Your task to perform on an android device: Check the settings for the Google Play Music app Image 0: 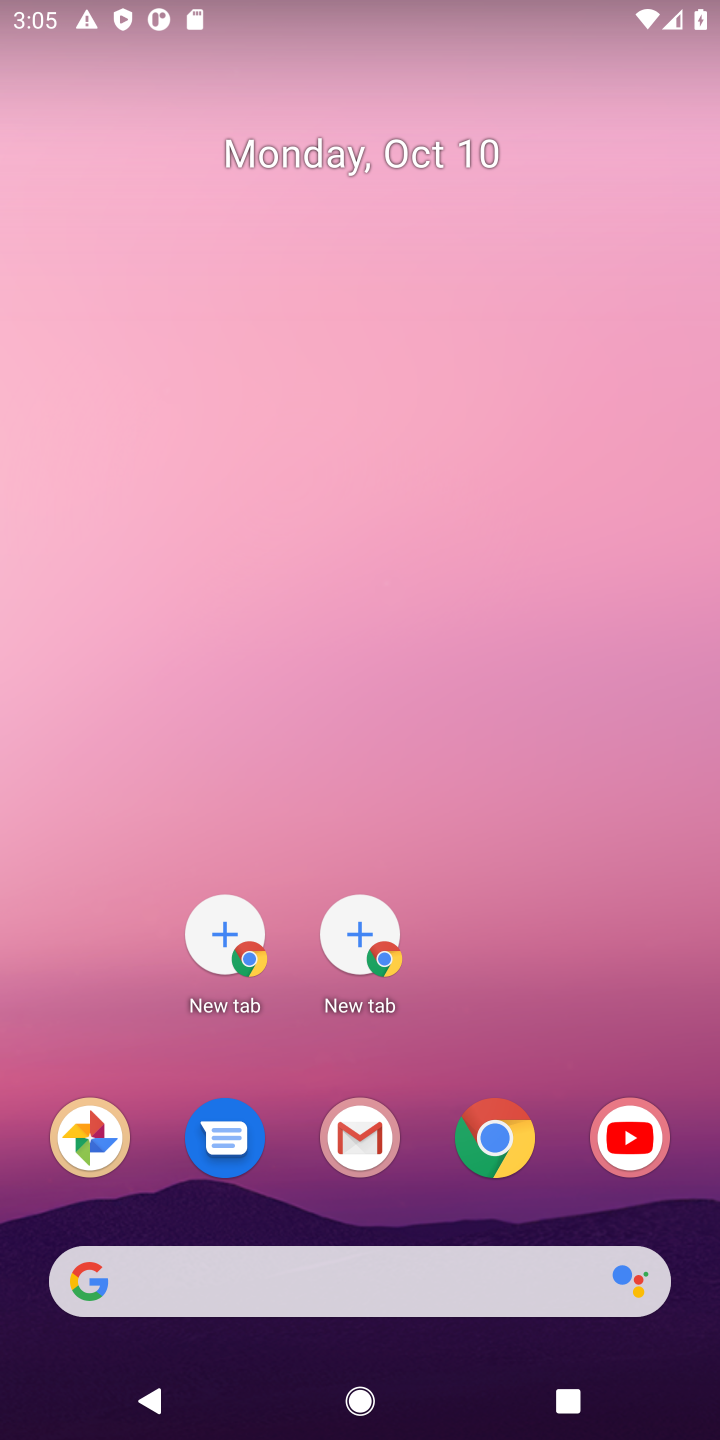
Step 0: click (506, 1151)
Your task to perform on an android device: Check the settings for the Google Play Music app Image 1: 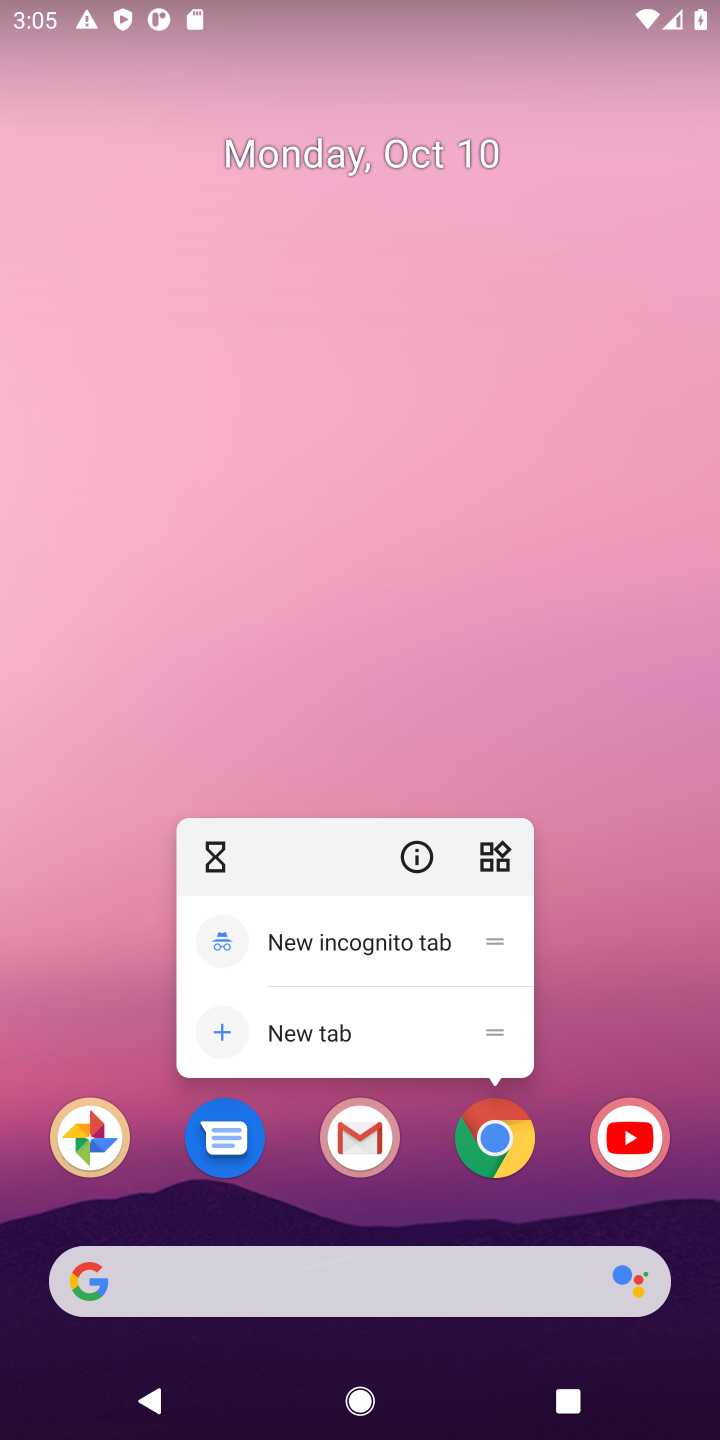
Step 1: drag from (329, 1365) to (310, 474)
Your task to perform on an android device: Check the settings for the Google Play Music app Image 2: 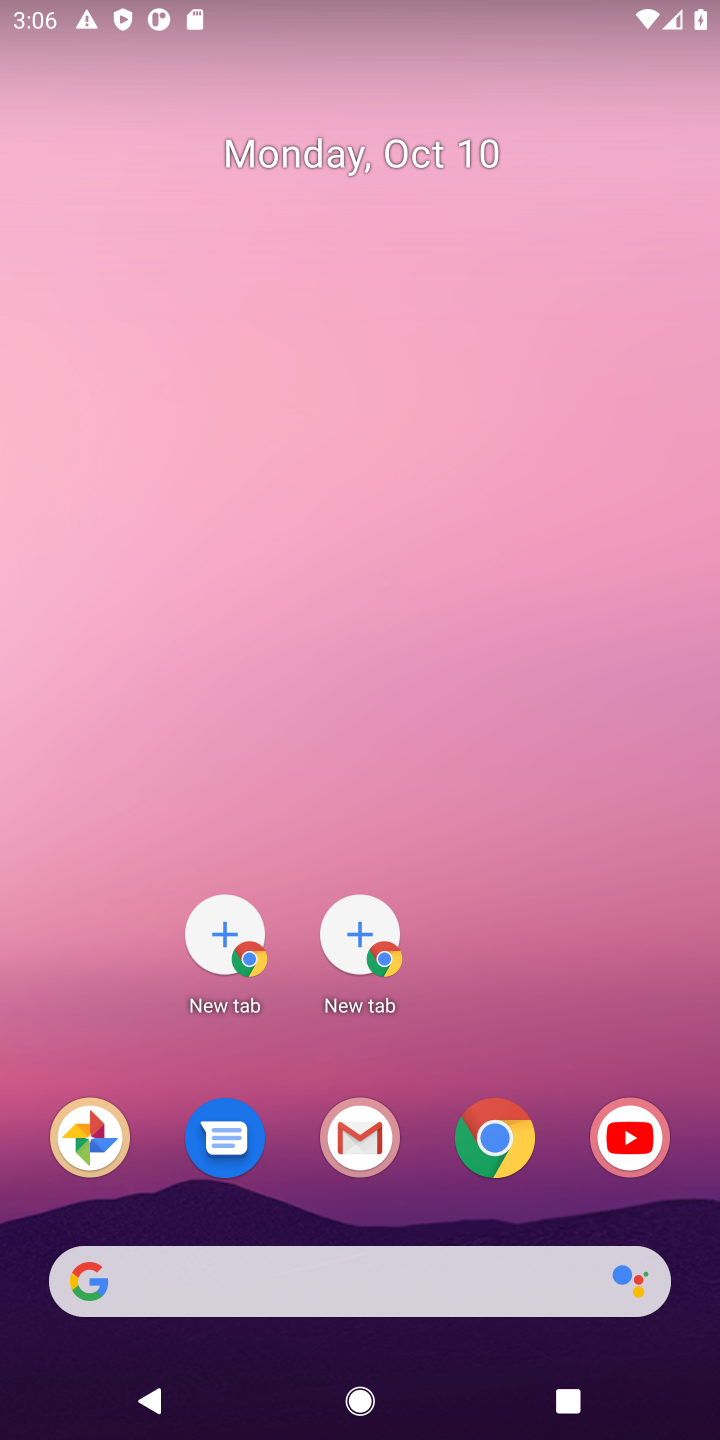
Step 2: drag from (515, 1432) to (490, 532)
Your task to perform on an android device: Check the settings for the Google Play Music app Image 3: 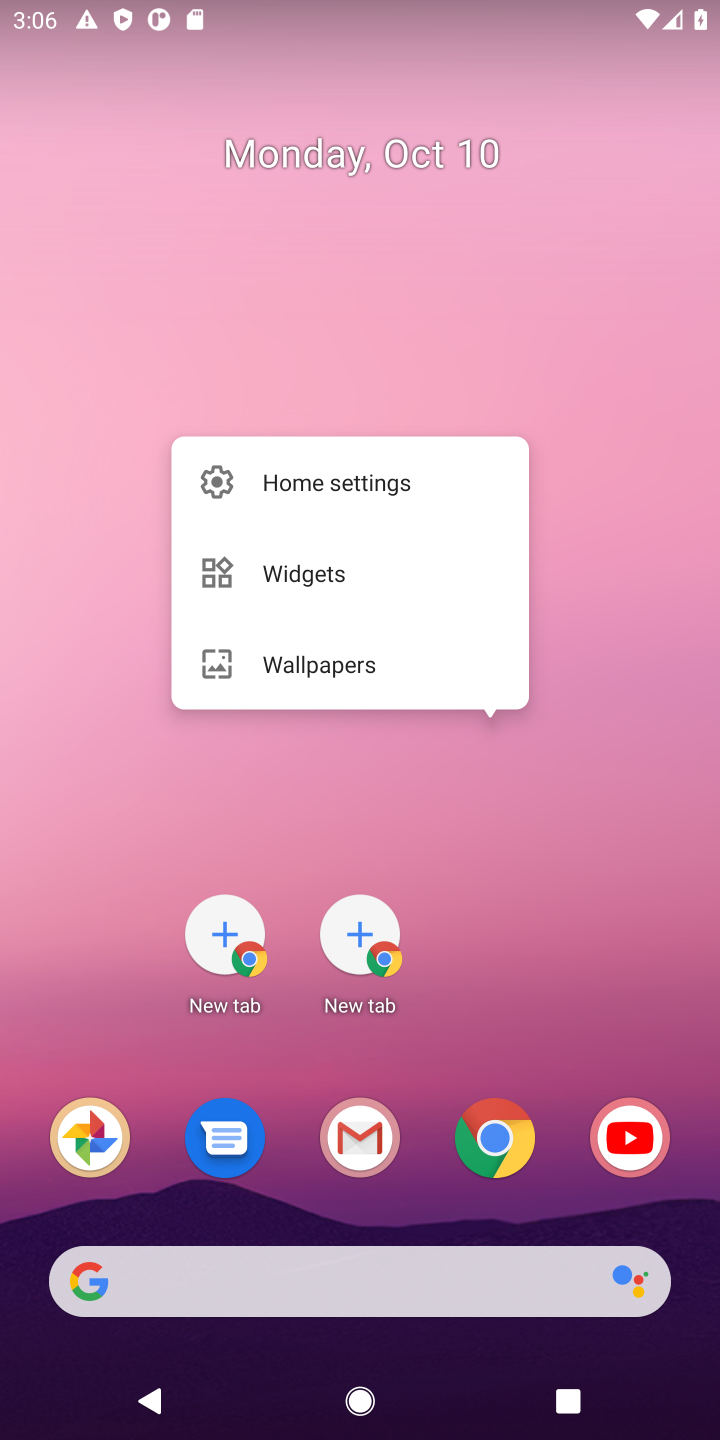
Step 3: drag from (608, 1009) to (491, 30)
Your task to perform on an android device: Check the settings for the Google Play Music app Image 4: 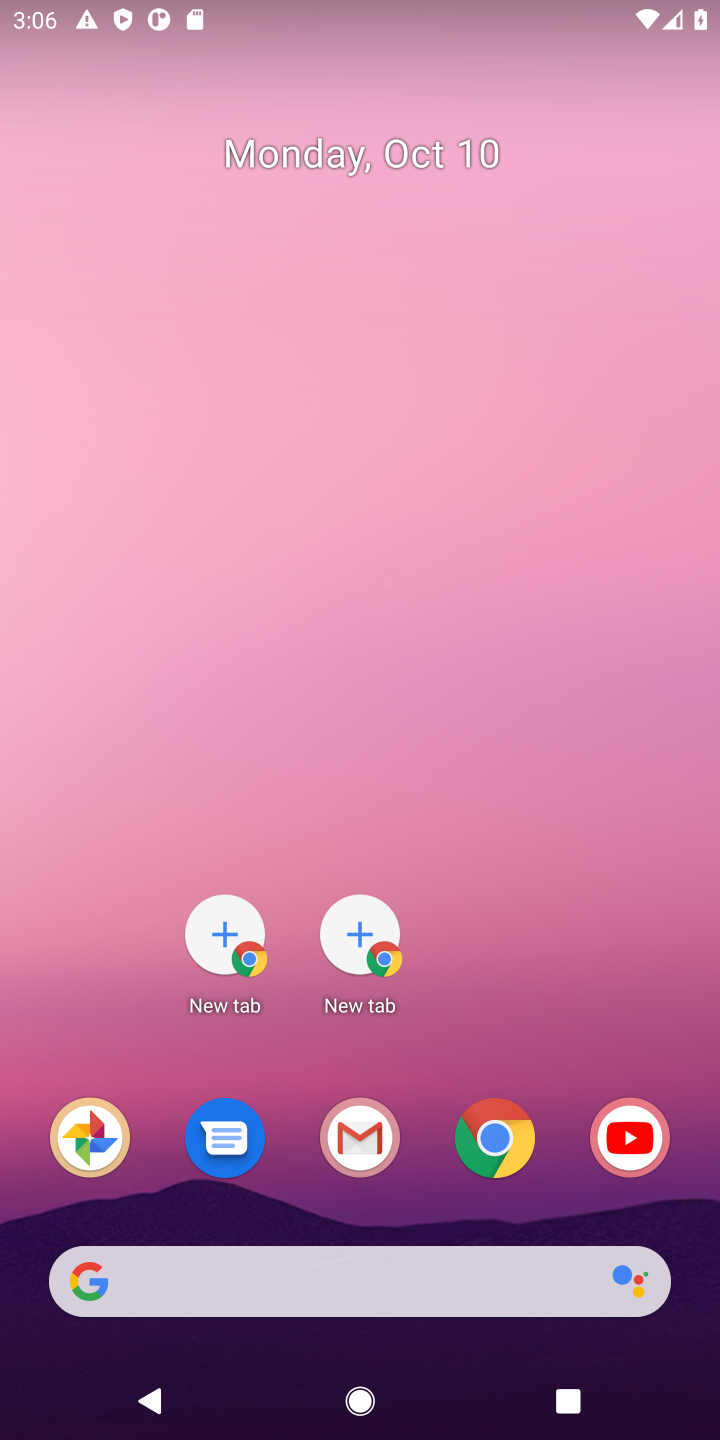
Step 4: drag from (245, 1365) to (321, 105)
Your task to perform on an android device: Check the settings for the Google Play Music app Image 5: 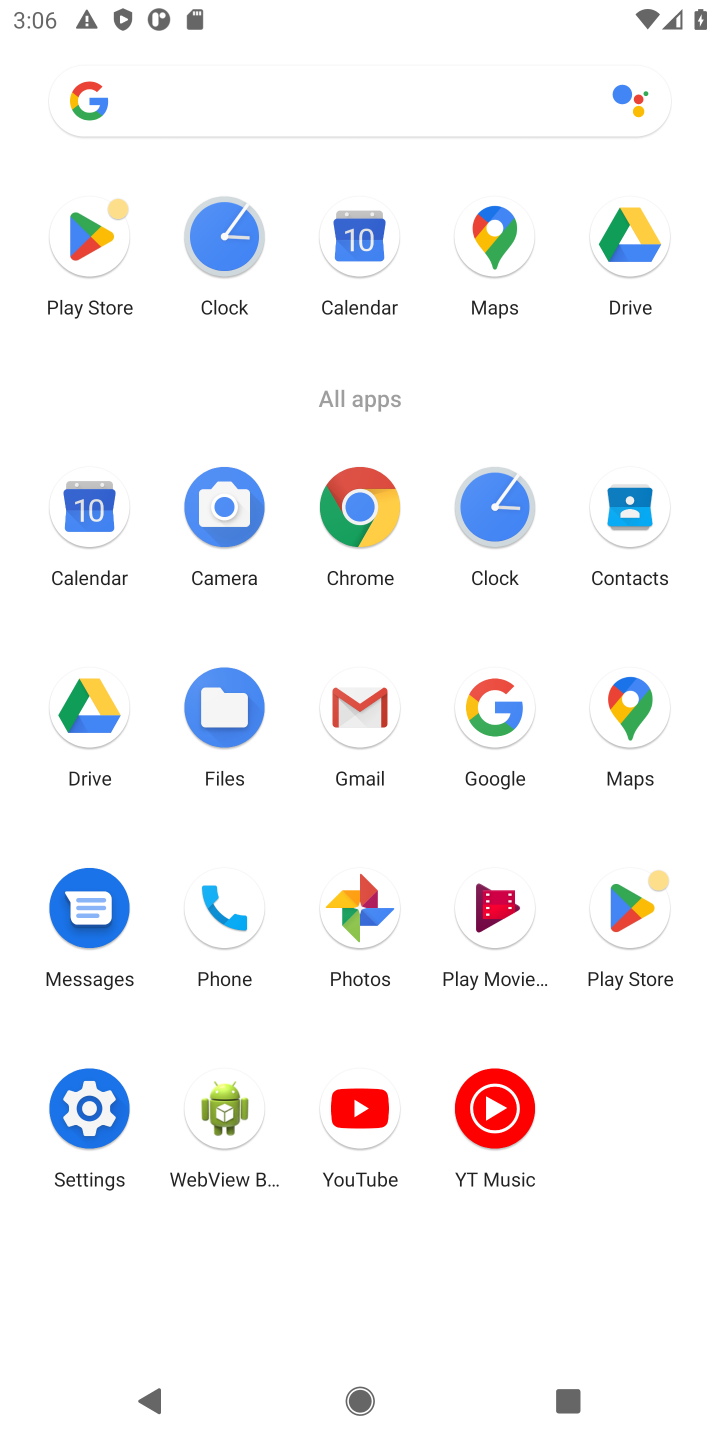
Step 5: click (110, 1109)
Your task to perform on an android device: Check the settings for the Google Play Music app Image 6: 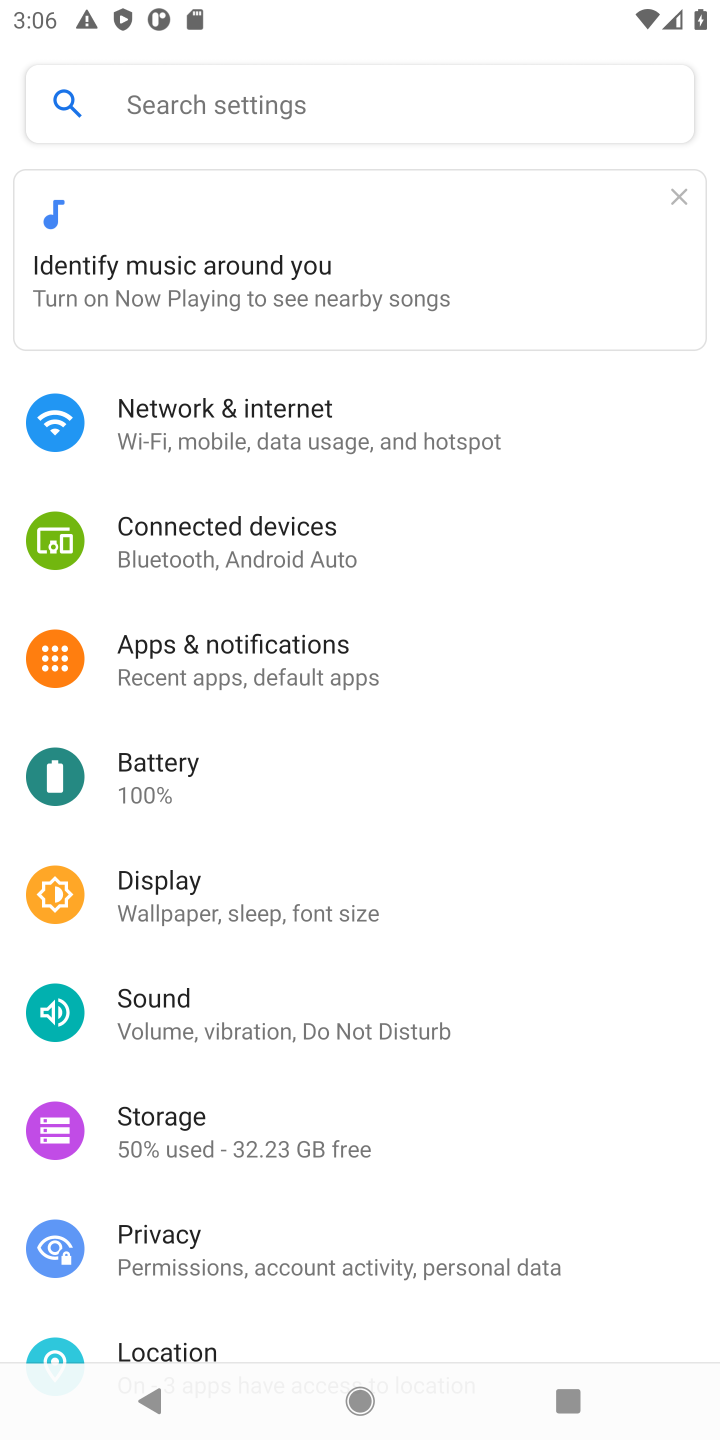
Step 6: drag from (282, 1046) to (250, 441)
Your task to perform on an android device: Check the settings for the Google Play Music app Image 7: 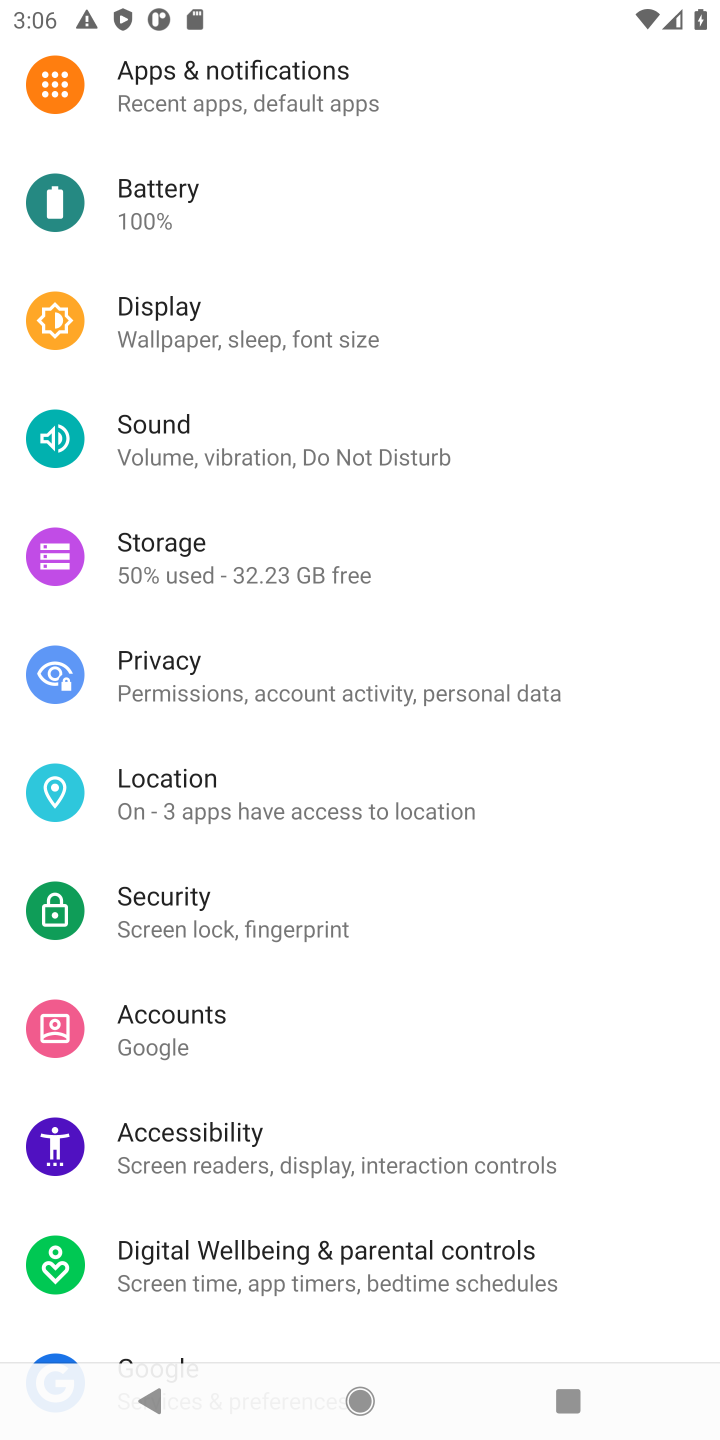
Step 7: drag from (340, 1209) to (331, 265)
Your task to perform on an android device: Check the settings for the Google Play Music app Image 8: 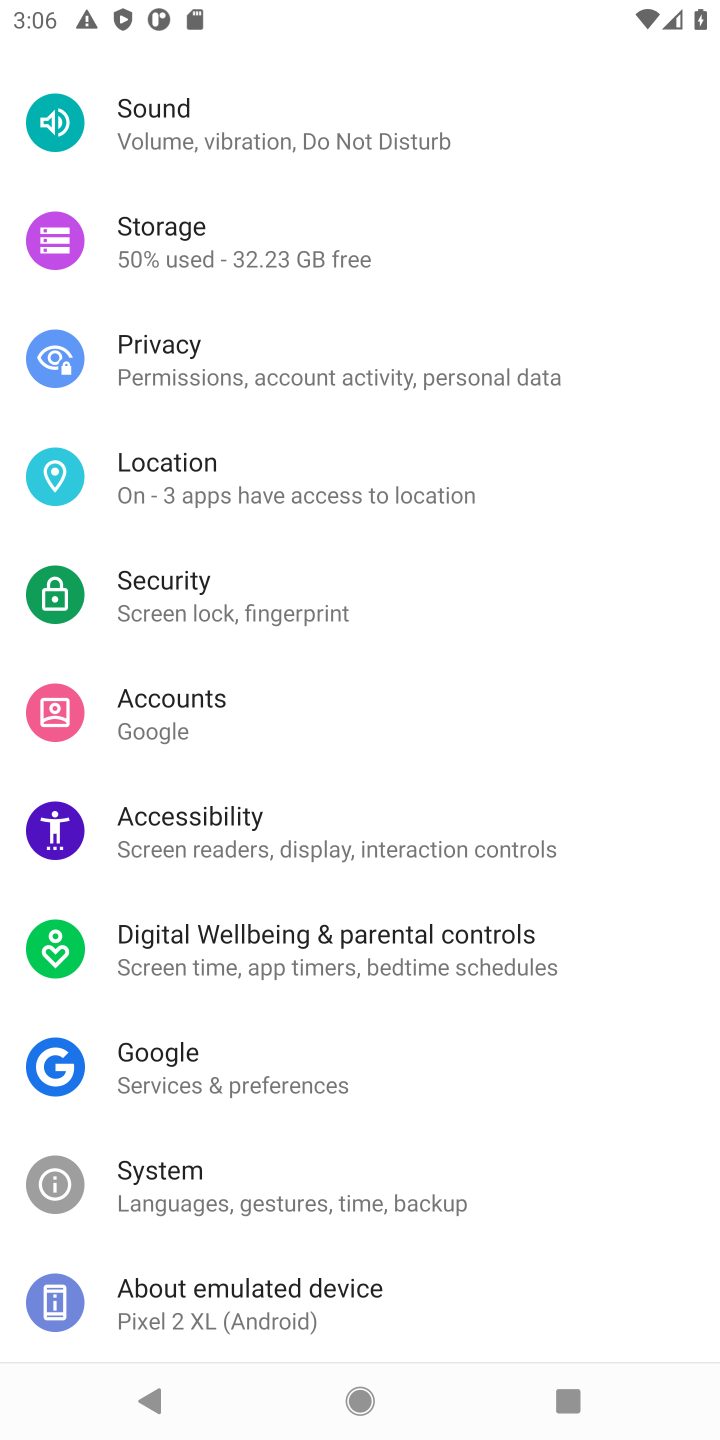
Step 8: click (332, 241)
Your task to perform on an android device: Check the settings for the Google Play Music app Image 9: 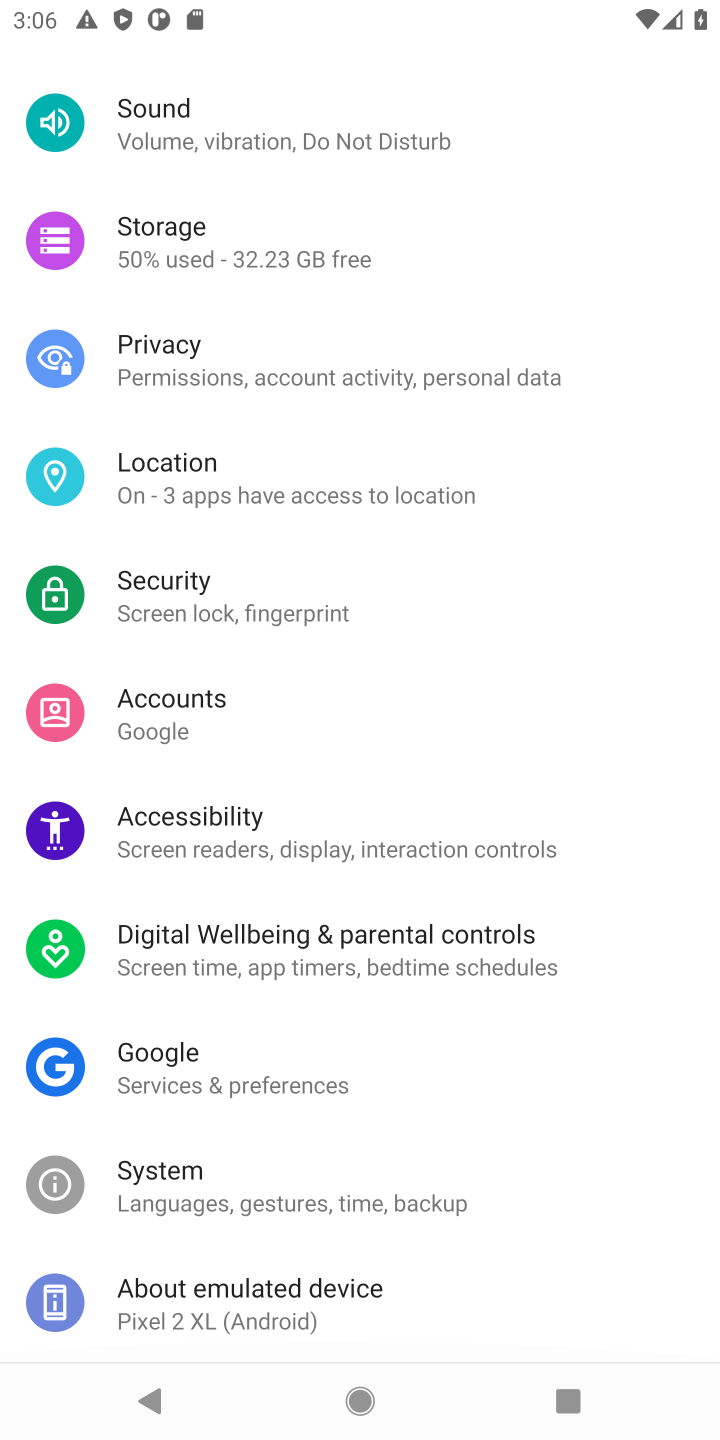
Step 9: drag from (276, 1205) to (293, 502)
Your task to perform on an android device: Check the settings for the Google Play Music app Image 10: 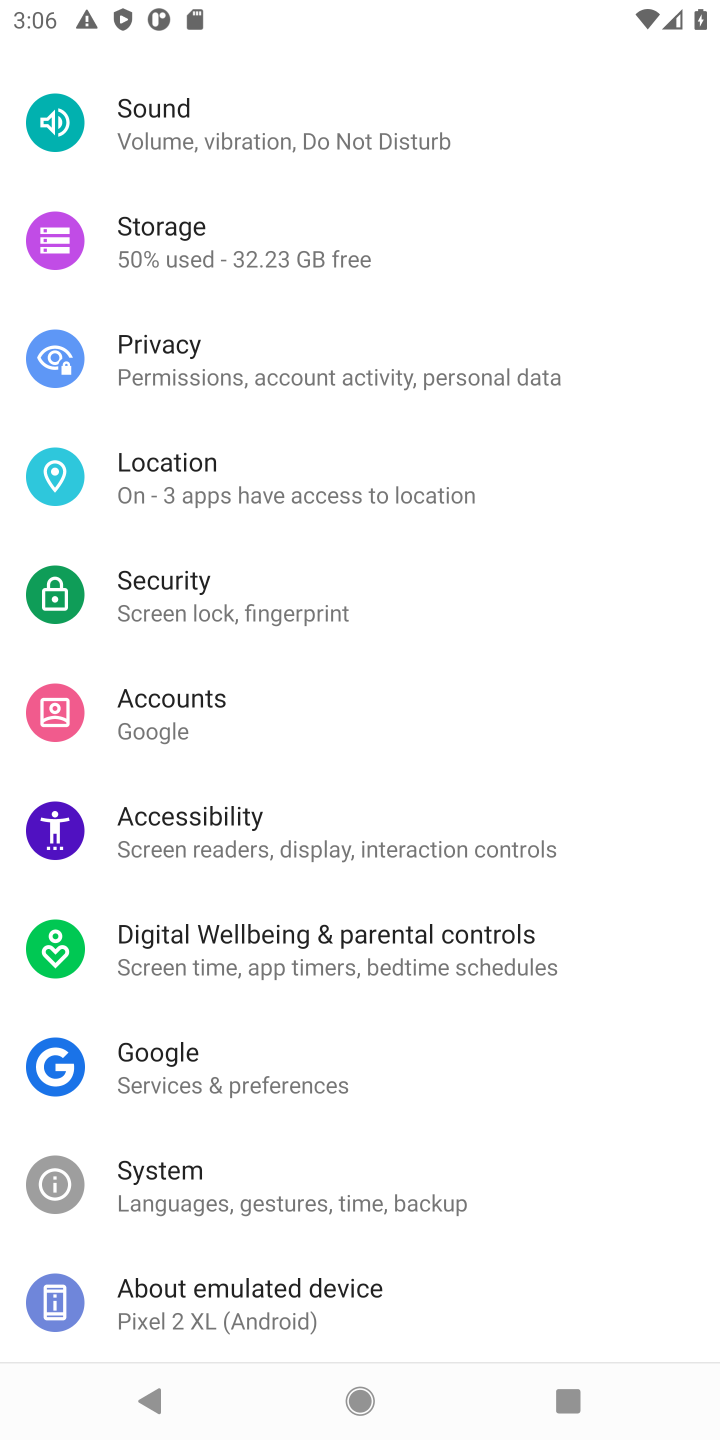
Step 10: drag from (258, 312) to (258, 788)
Your task to perform on an android device: Check the settings for the Google Play Music app Image 11: 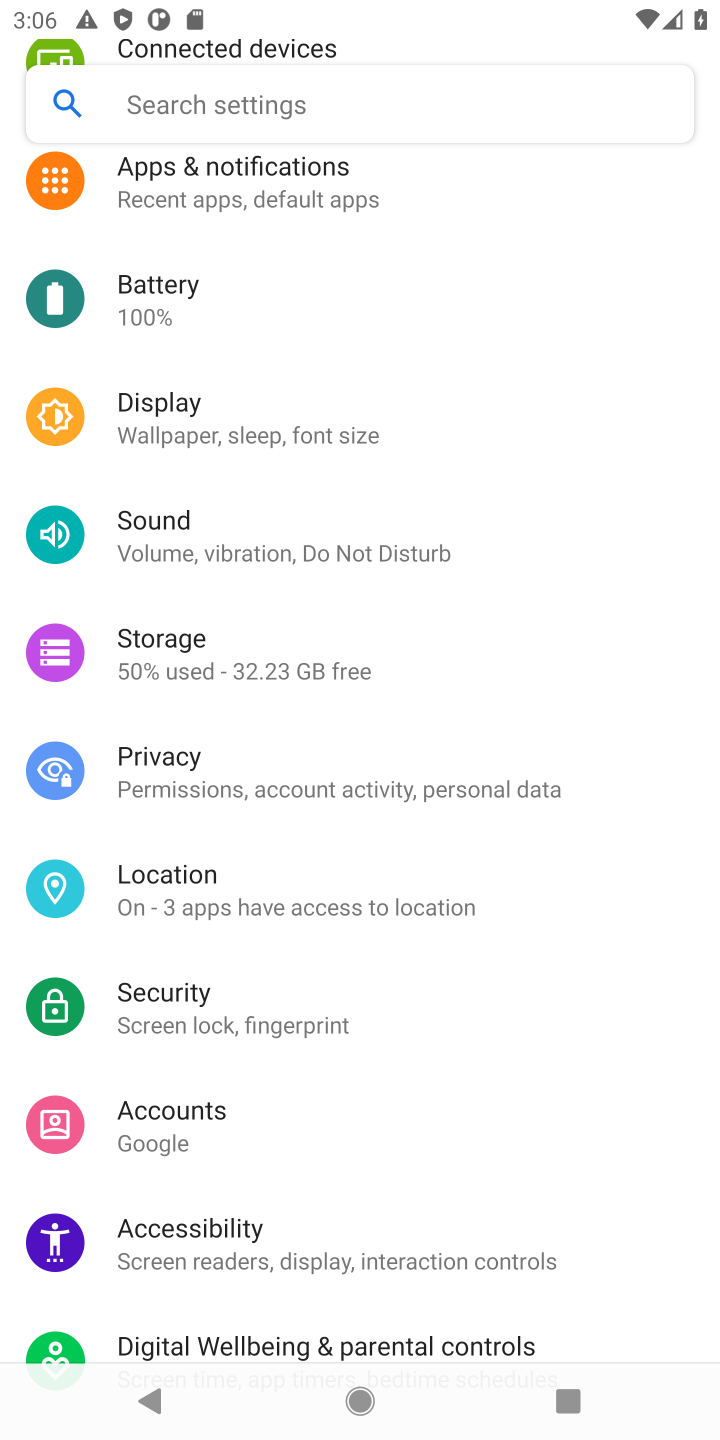
Step 11: click (248, 673)
Your task to perform on an android device: Check the settings for the Google Play Music app Image 12: 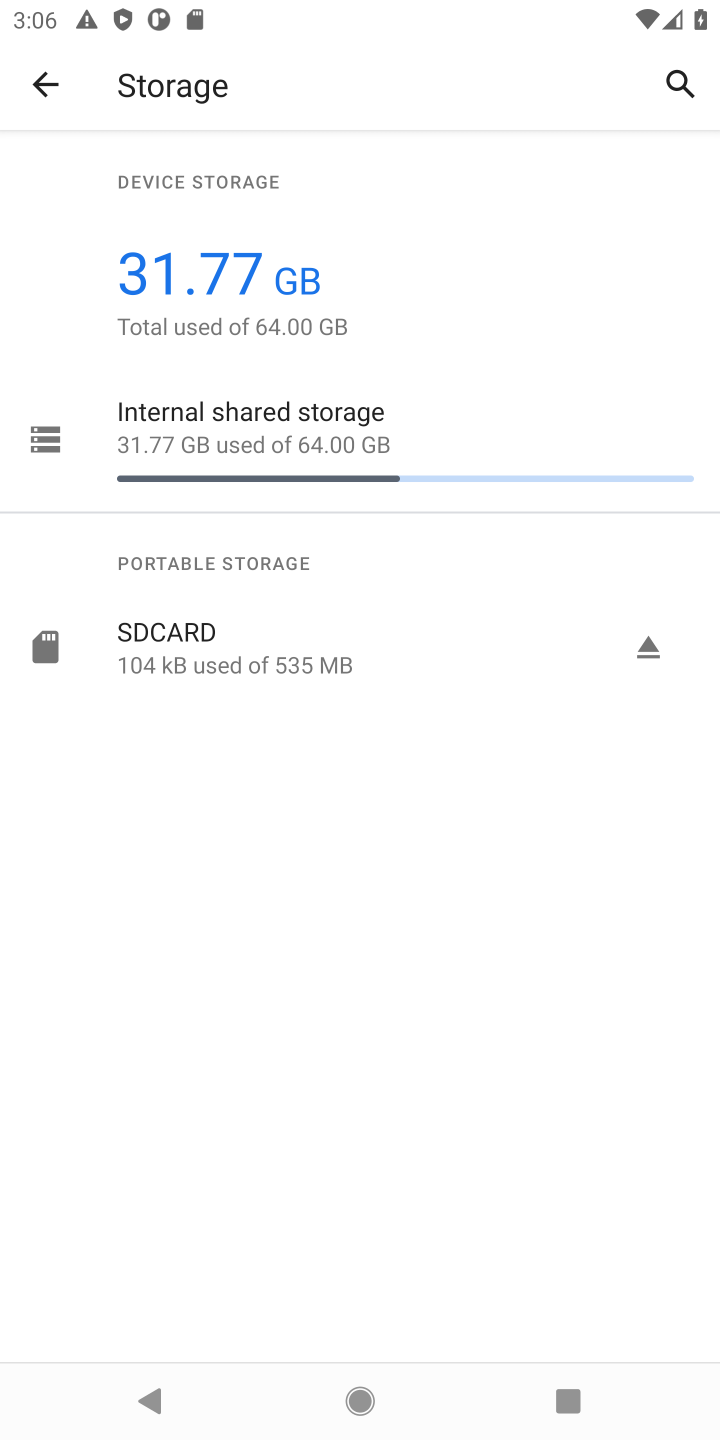
Step 12: click (85, 95)
Your task to perform on an android device: Check the settings for the Google Play Music app Image 13: 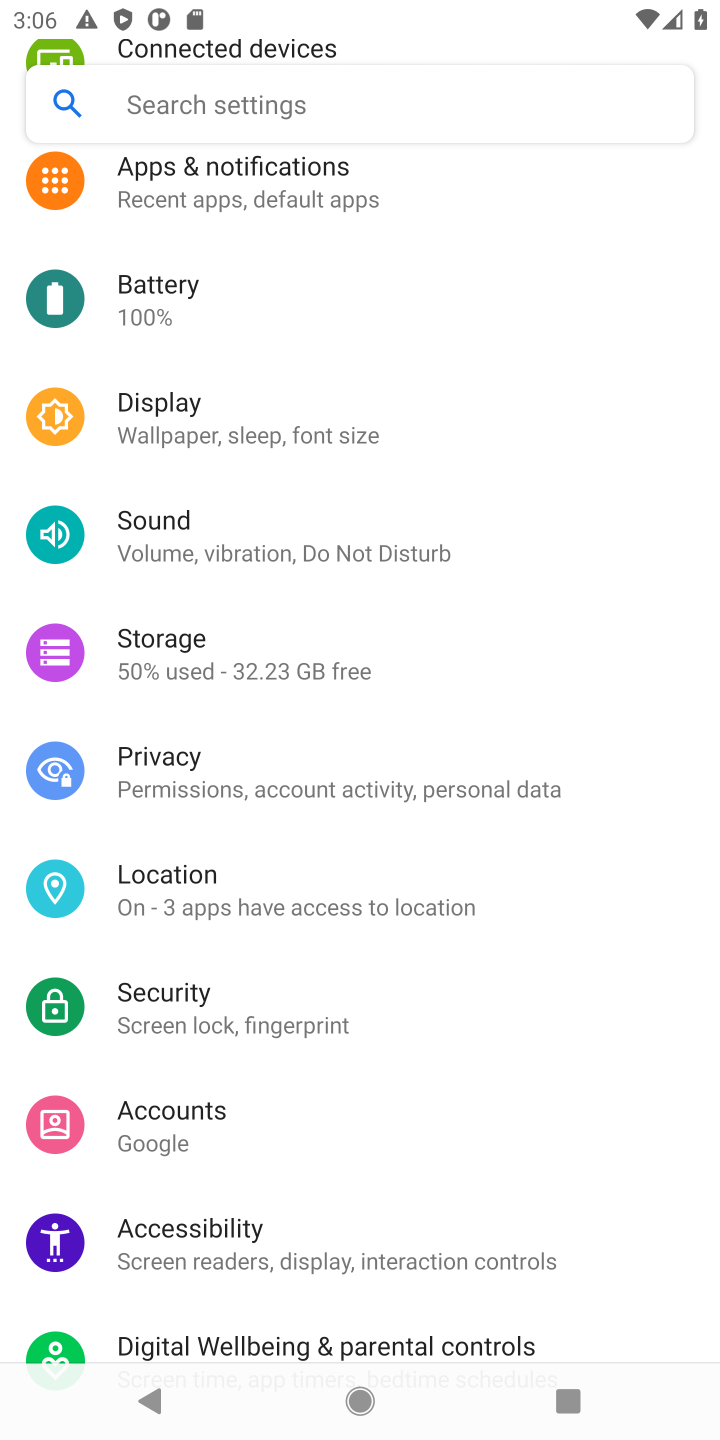
Step 13: click (282, 198)
Your task to perform on an android device: Check the settings for the Google Play Music app Image 14: 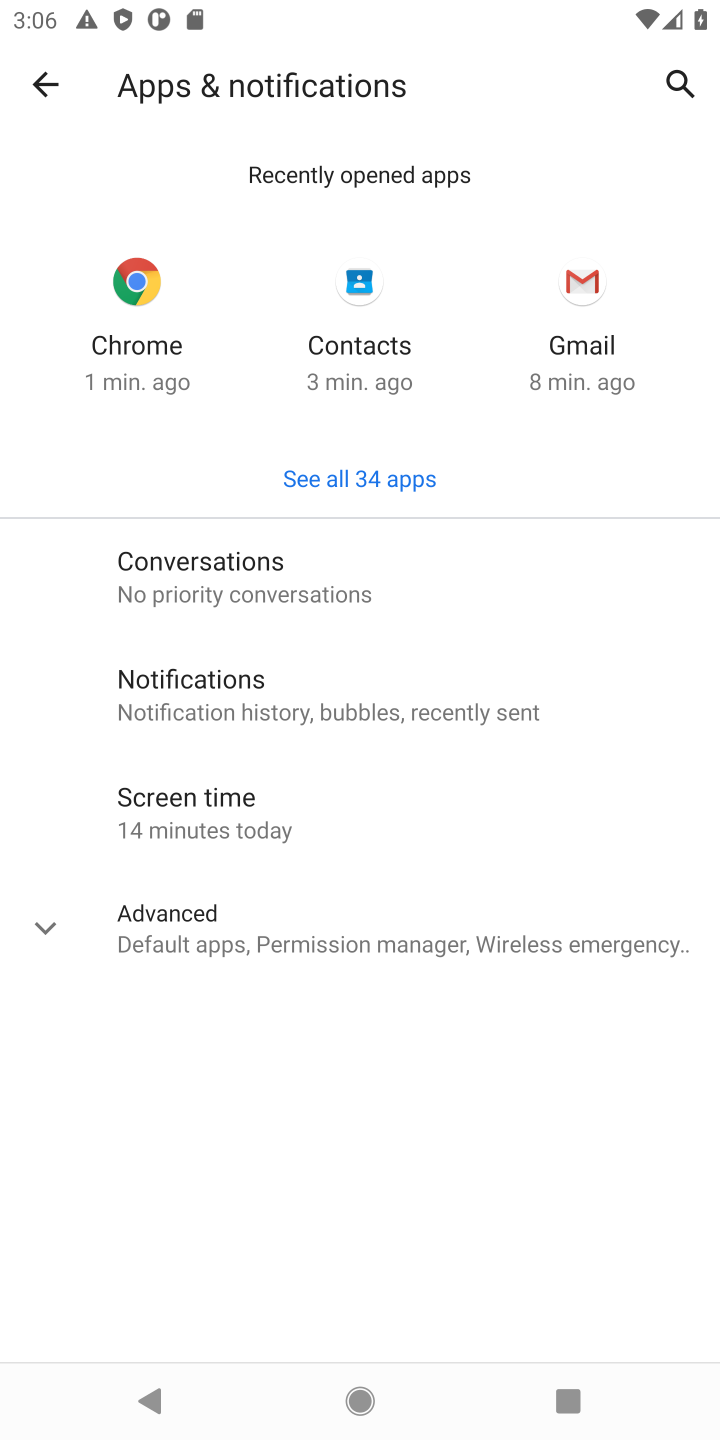
Step 14: click (326, 488)
Your task to perform on an android device: Check the settings for the Google Play Music app Image 15: 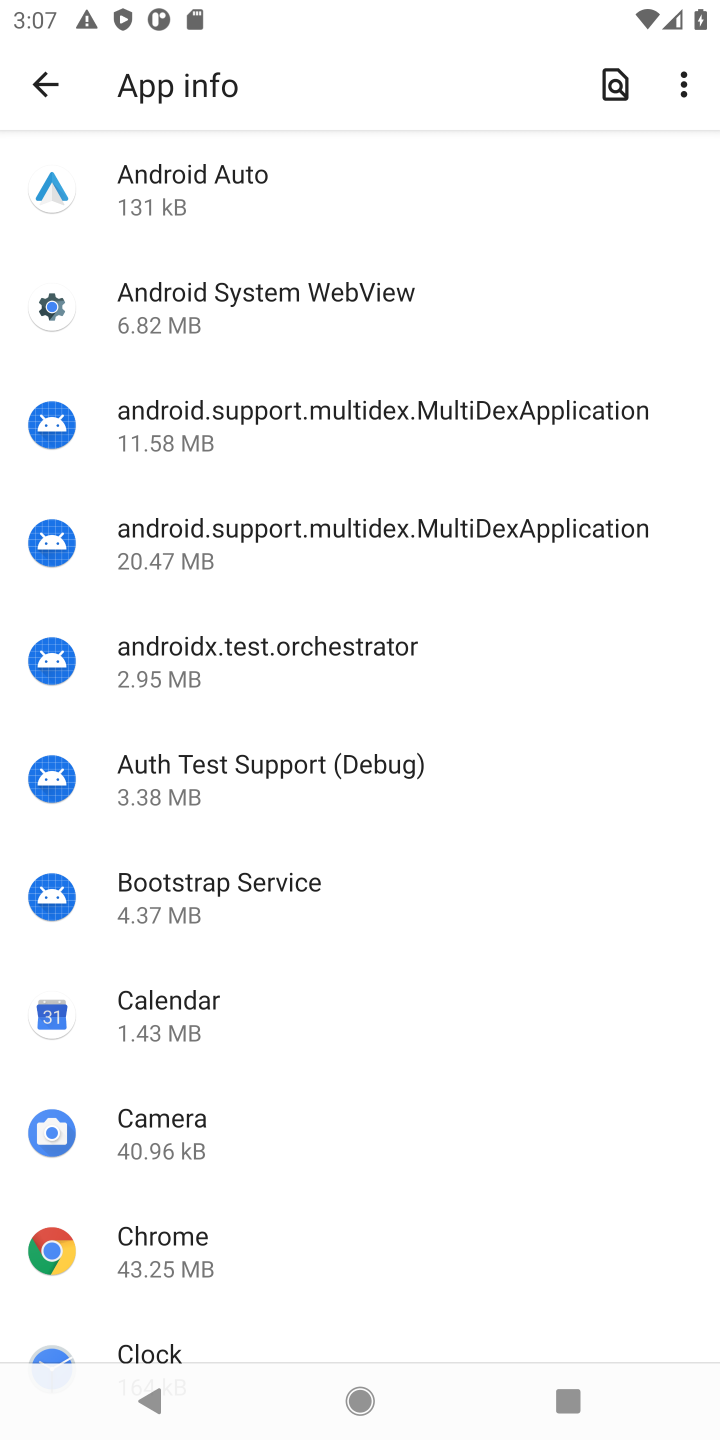
Step 15: task complete